Your task to perform on an android device: Set an alarm for 6am Image 0: 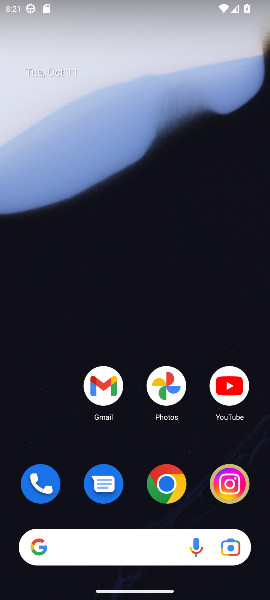
Step 0: drag from (88, 545) to (151, 106)
Your task to perform on an android device: Set an alarm for 6am Image 1: 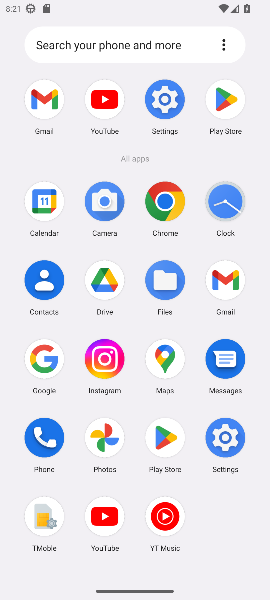
Step 1: click (225, 200)
Your task to perform on an android device: Set an alarm for 6am Image 2: 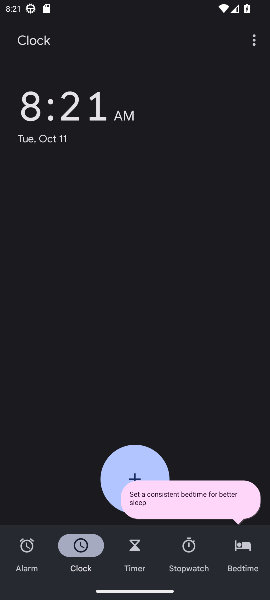
Step 2: click (27, 546)
Your task to perform on an android device: Set an alarm for 6am Image 3: 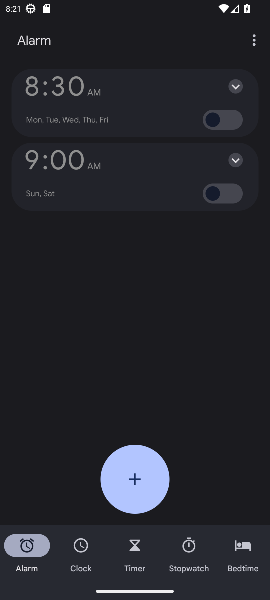
Step 3: click (136, 478)
Your task to perform on an android device: Set an alarm for 6am Image 4: 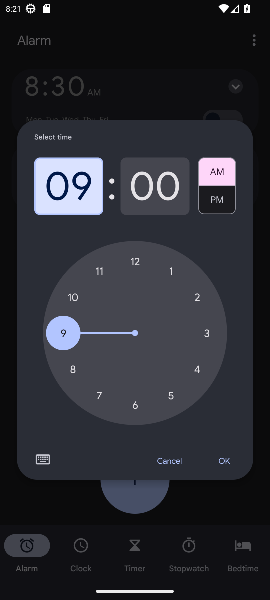
Step 4: click (137, 405)
Your task to perform on an android device: Set an alarm for 6am Image 5: 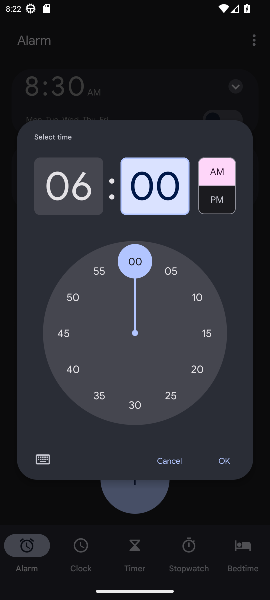
Step 5: click (222, 459)
Your task to perform on an android device: Set an alarm for 6am Image 6: 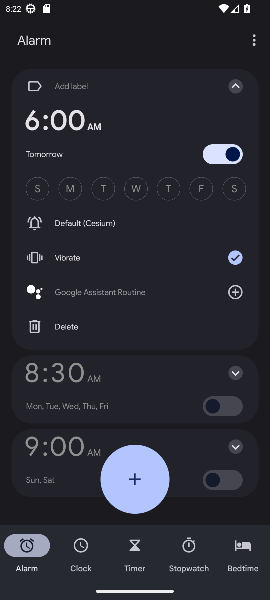
Step 6: click (235, 84)
Your task to perform on an android device: Set an alarm for 6am Image 7: 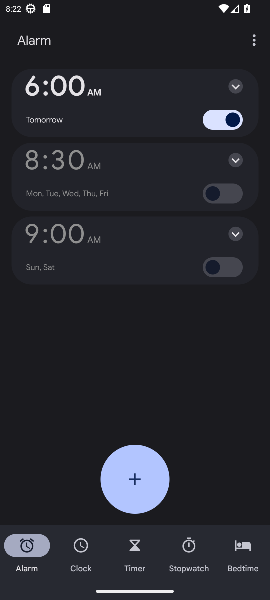
Step 7: task complete